Your task to perform on an android device: visit the assistant section in the google photos Image 0: 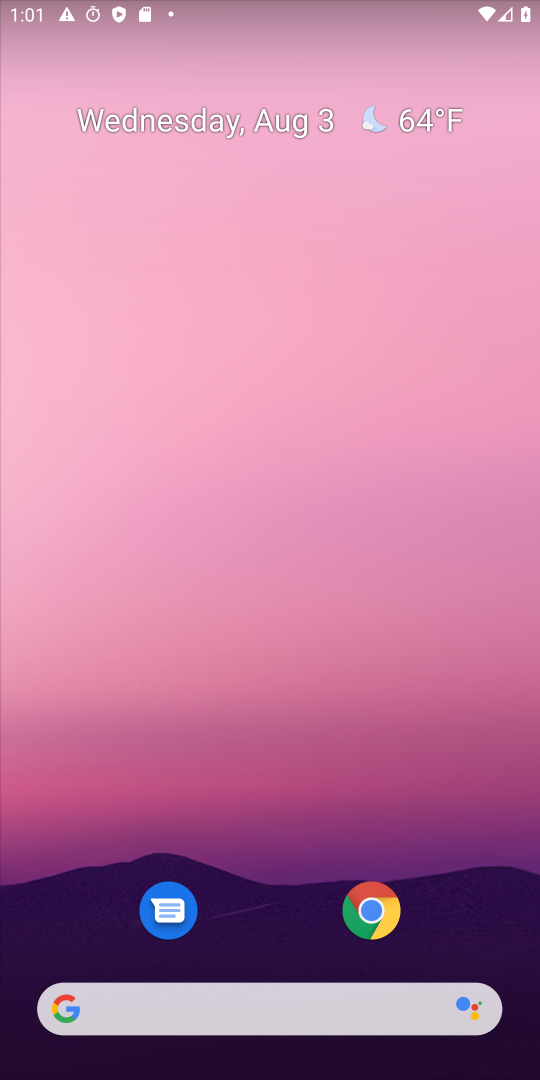
Step 0: drag from (358, 699) to (433, 1)
Your task to perform on an android device: visit the assistant section in the google photos Image 1: 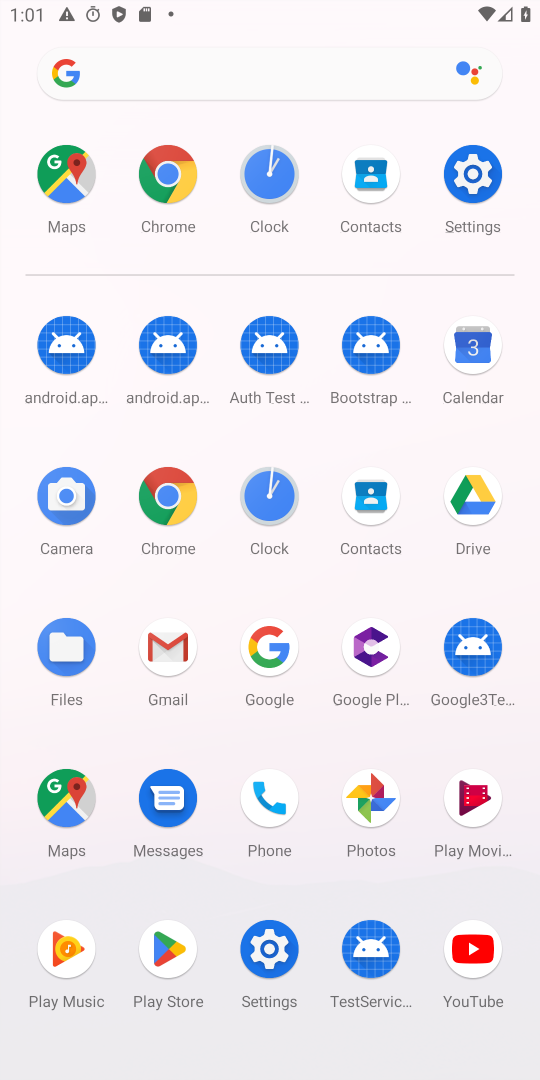
Step 1: click (383, 808)
Your task to perform on an android device: visit the assistant section in the google photos Image 2: 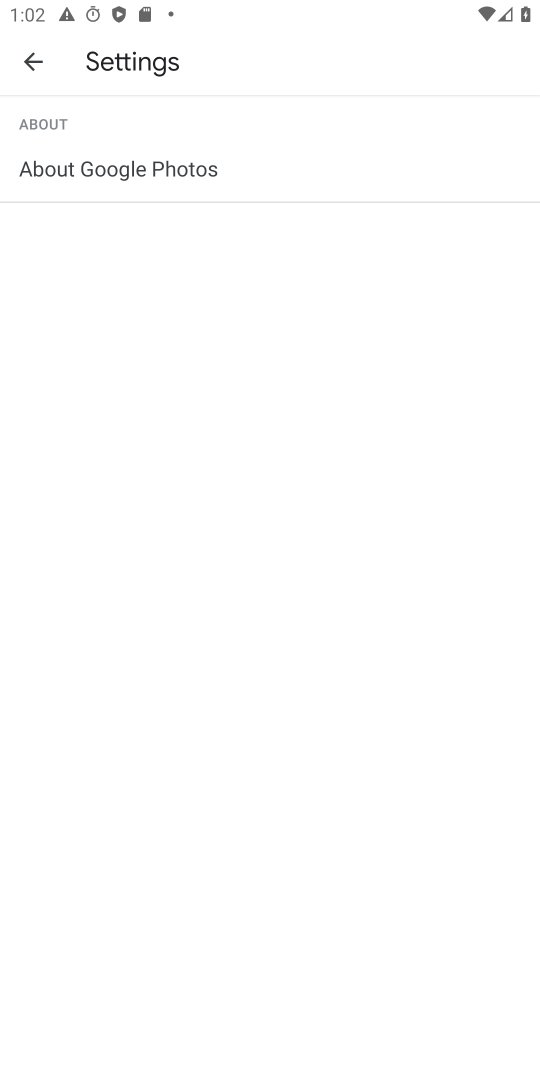
Step 2: press home button
Your task to perform on an android device: visit the assistant section in the google photos Image 3: 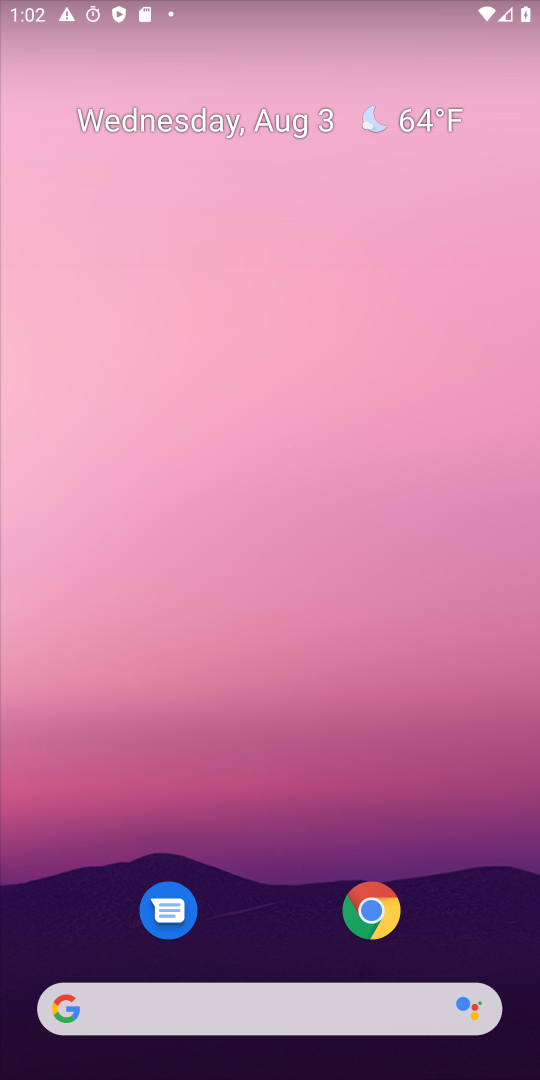
Step 3: drag from (308, 924) to (336, 249)
Your task to perform on an android device: visit the assistant section in the google photos Image 4: 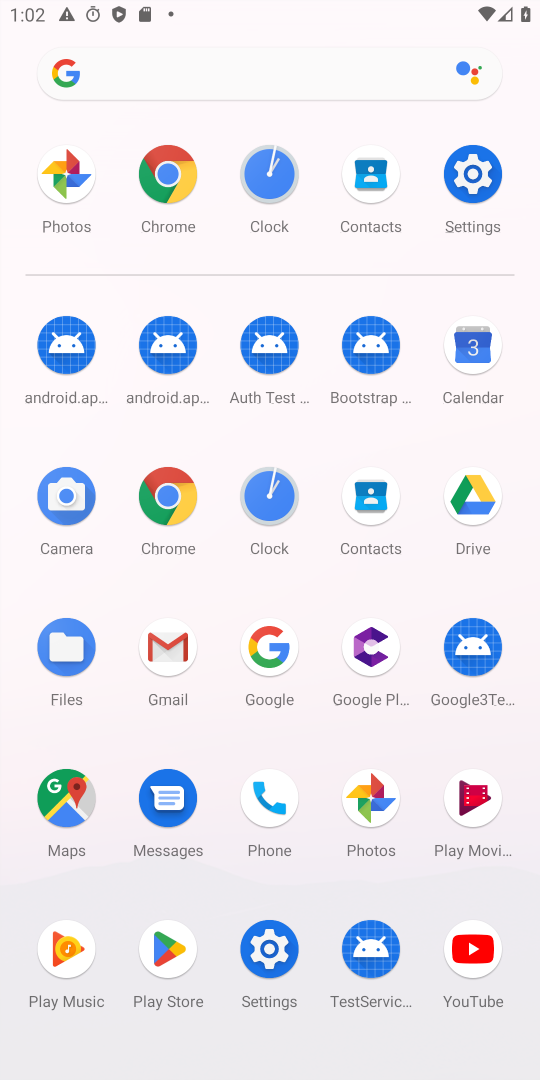
Step 4: click (377, 796)
Your task to perform on an android device: visit the assistant section in the google photos Image 5: 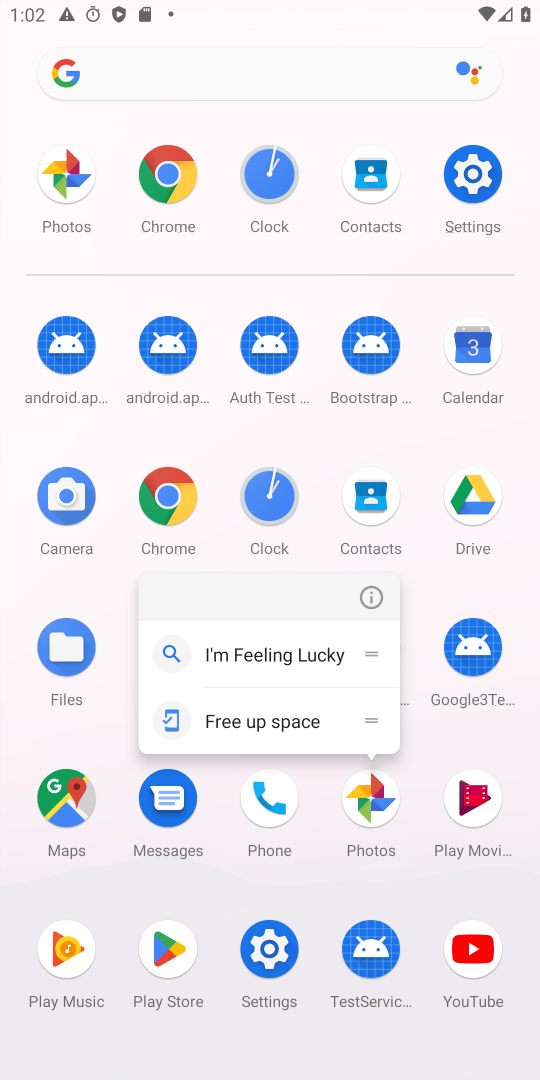
Step 5: click (377, 796)
Your task to perform on an android device: visit the assistant section in the google photos Image 6: 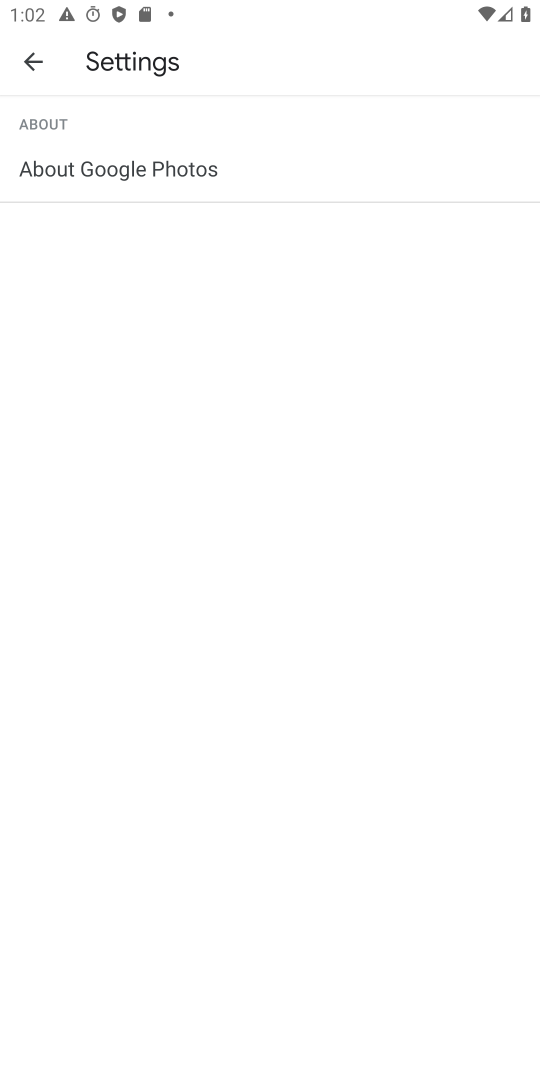
Step 6: press back button
Your task to perform on an android device: visit the assistant section in the google photos Image 7: 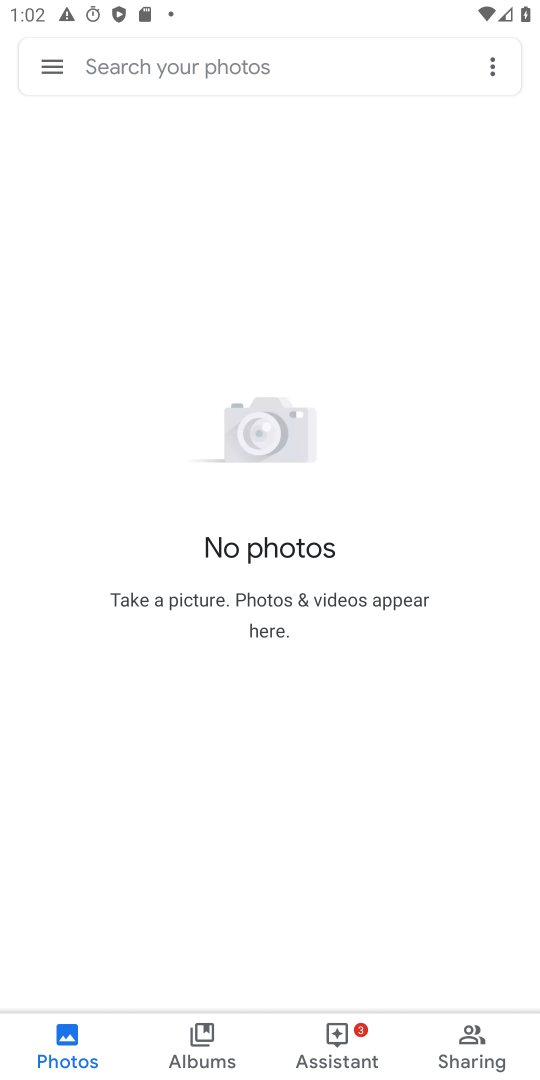
Step 7: click (372, 1047)
Your task to perform on an android device: visit the assistant section in the google photos Image 8: 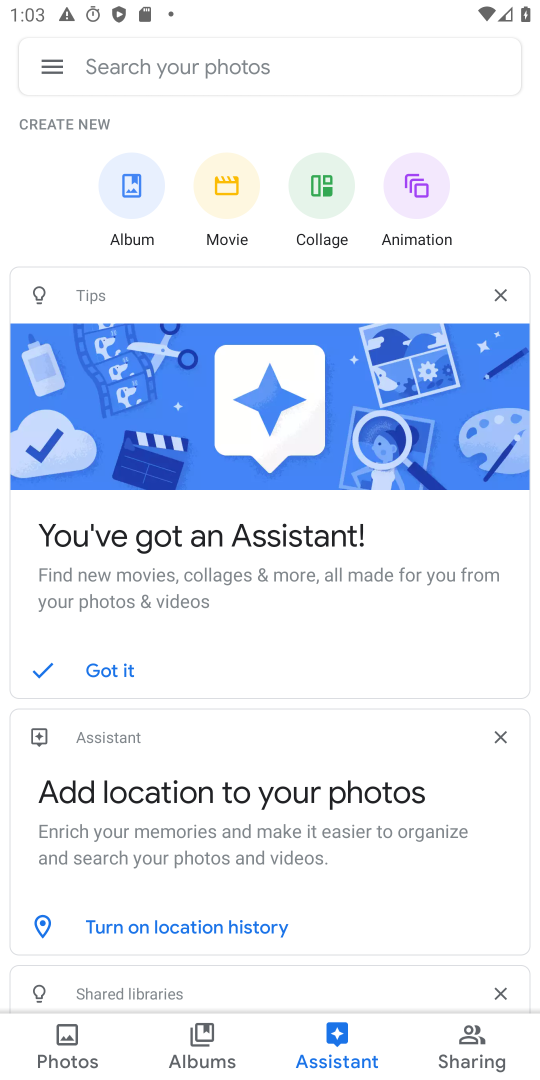
Step 8: task complete